Your task to perform on an android device: Show me recent news Image 0: 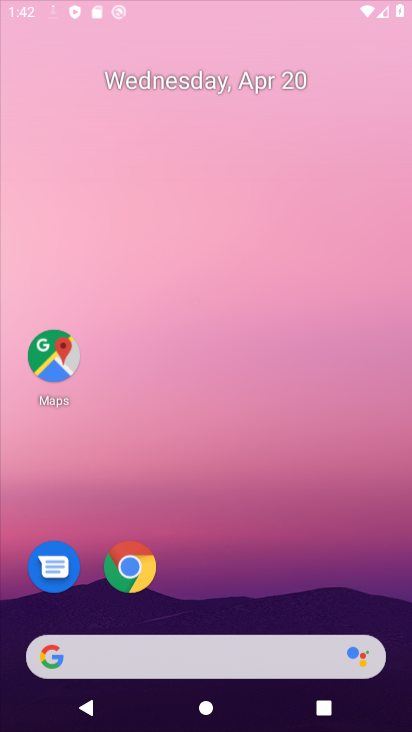
Step 0: click (131, 581)
Your task to perform on an android device: Show me recent news Image 1: 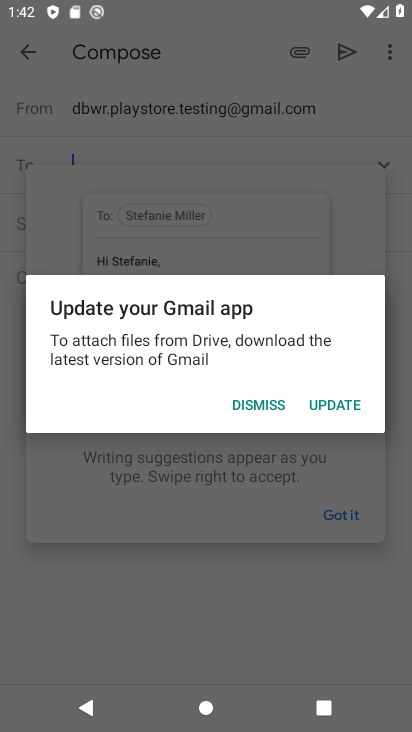
Step 1: press home button
Your task to perform on an android device: Show me recent news Image 2: 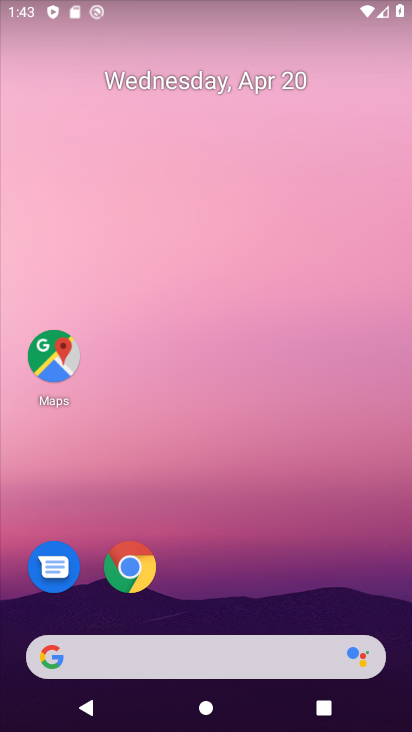
Step 2: drag from (292, 634) to (268, 395)
Your task to perform on an android device: Show me recent news Image 3: 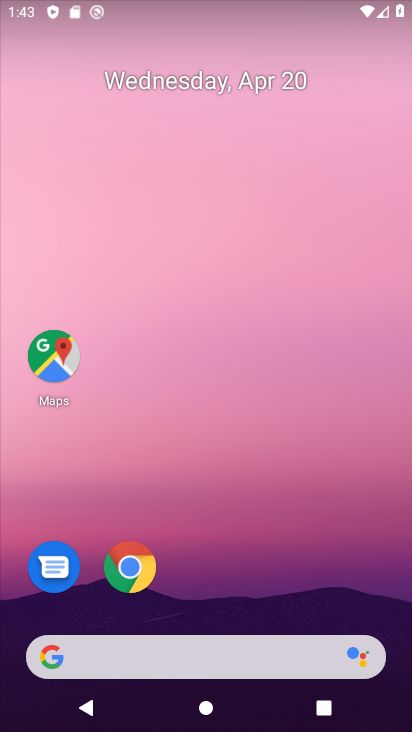
Step 3: click (268, 395)
Your task to perform on an android device: Show me recent news Image 4: 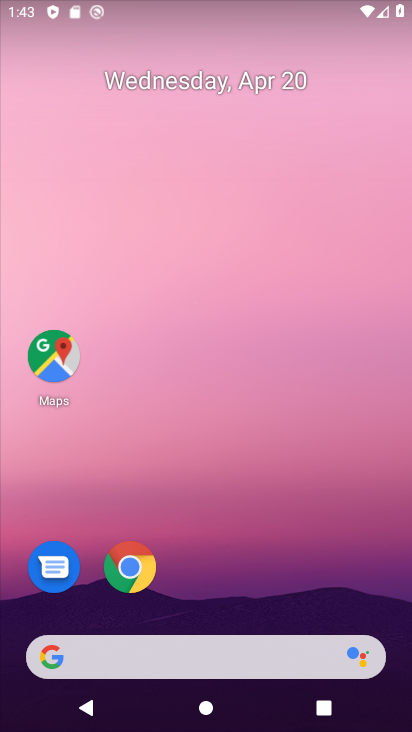
Step 4: task complete